Your task to perform on an android device: set the stopwatch Image 0: 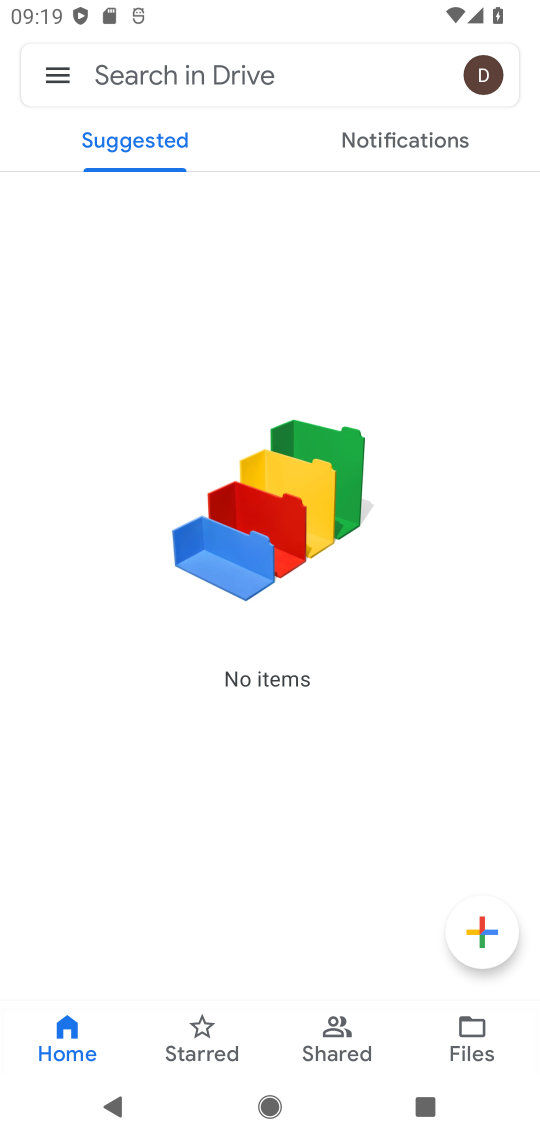
Step 0: press home button
Your task to perform on an android device: set the stopwatch Image 1: 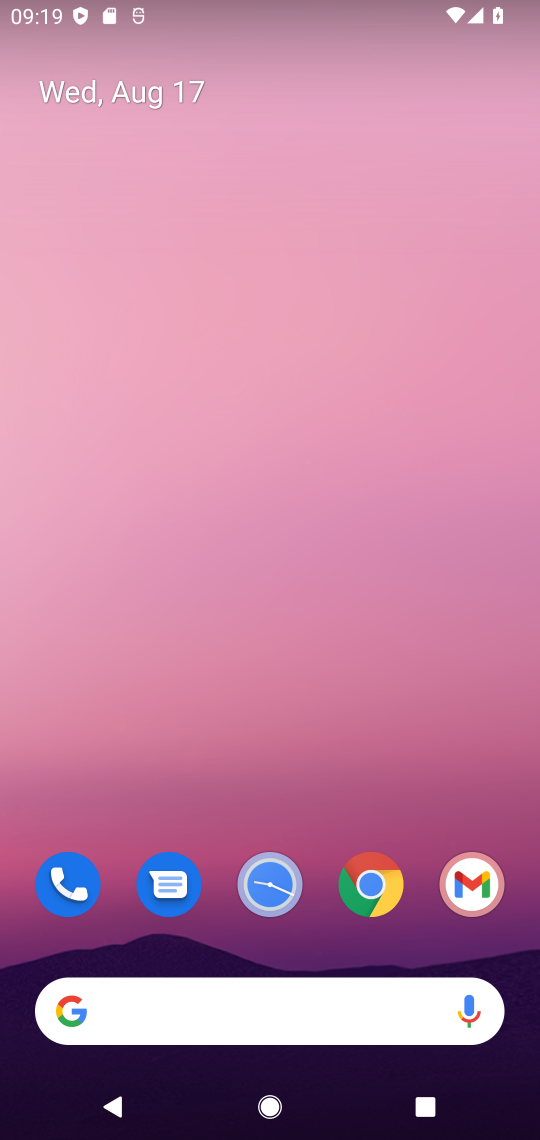
Step 1: click (255, 868)
Your task to perform on an android device: set the stopwatch Image 2: 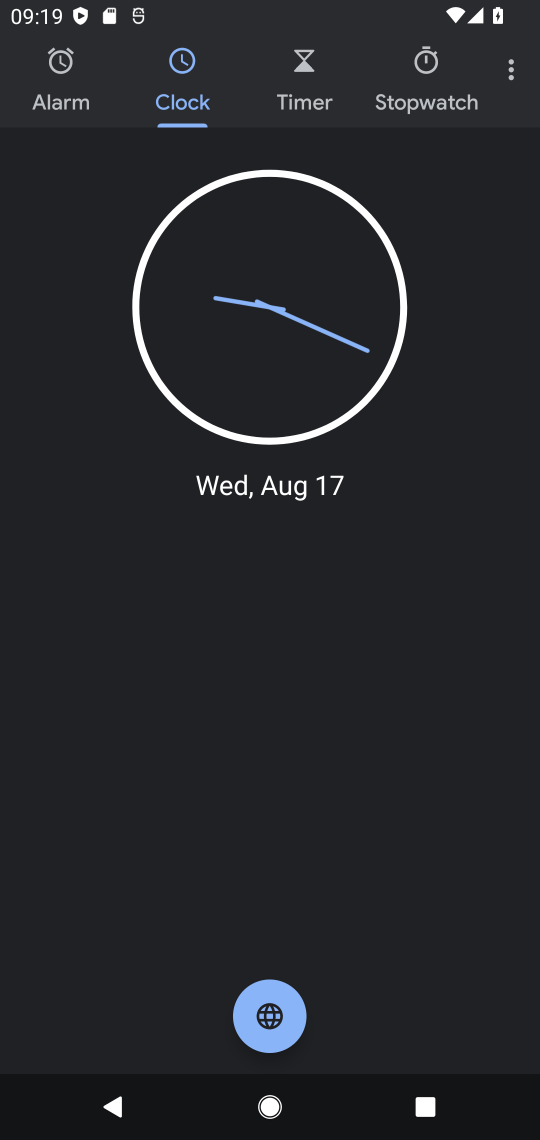
Step 2: click (427, 82)
Your task to perform on an android device: set the stopwatch Image 3: 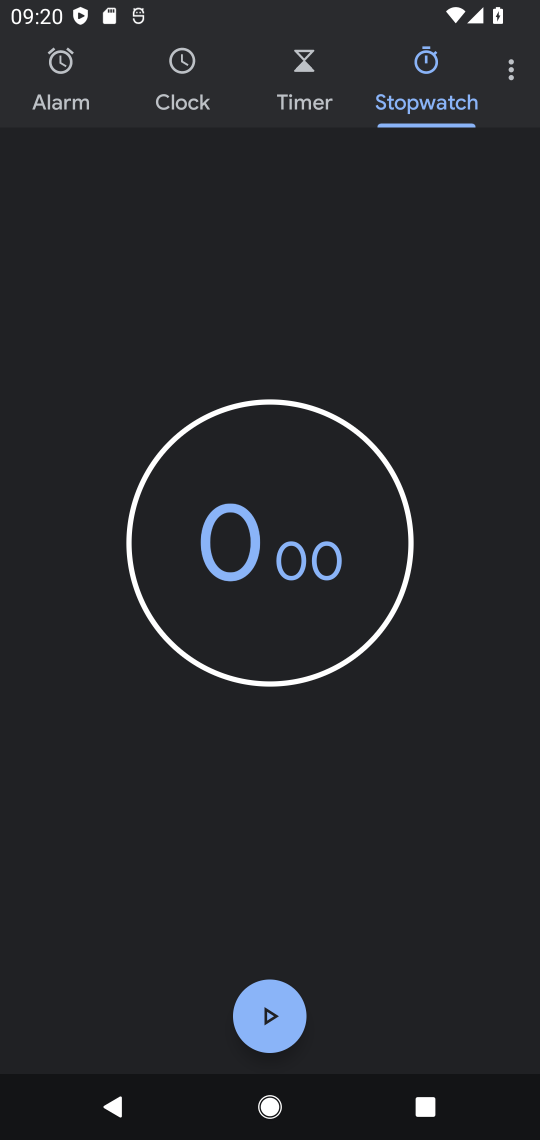
Step 3: click (275, 993)
Your task to perform on an android device: set the stopwatch Image 4: 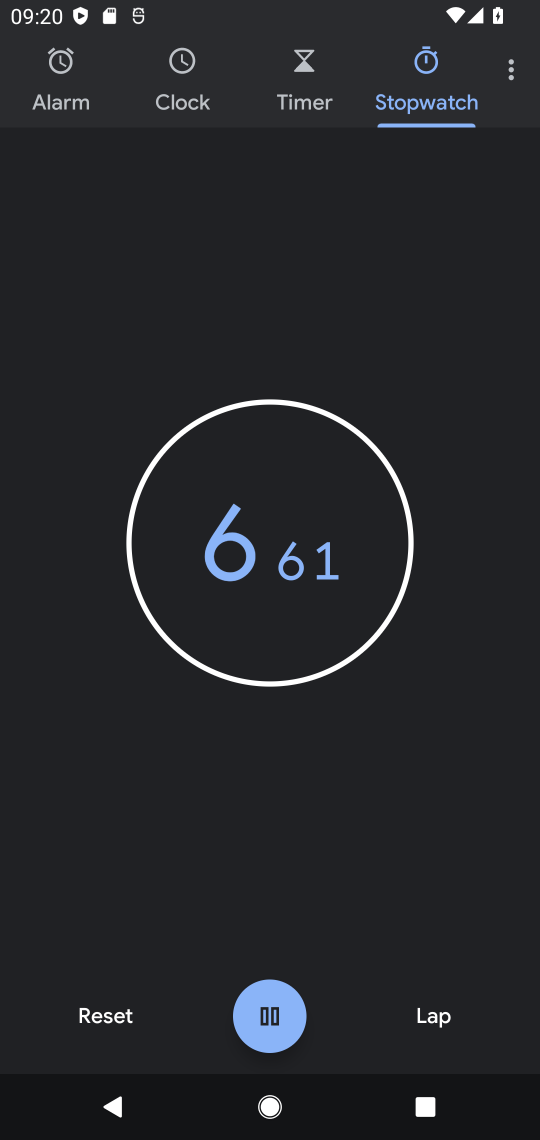
Step 4: task complete